Your task to perform on an android device: Is it going to rain today? Image 0: 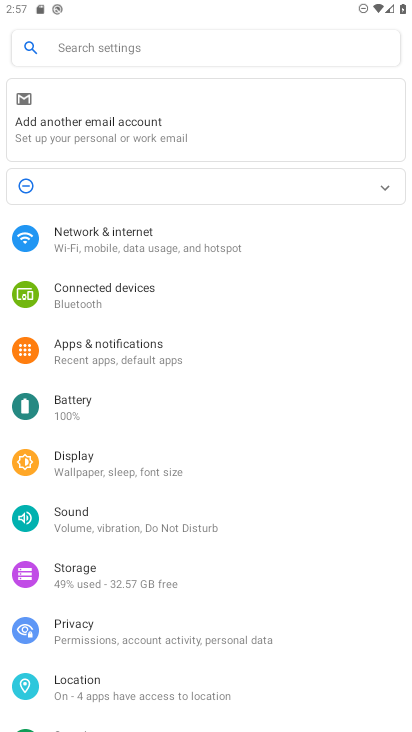
Step 0: press home button
Your task to perform on an android device: Is it going to rain today? Image 1: 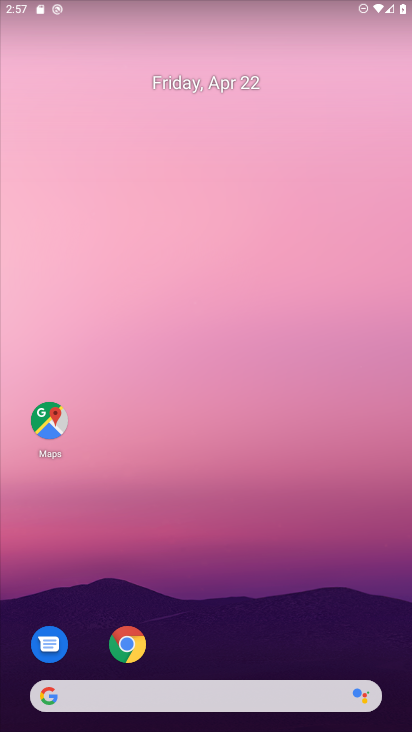
Step 1: drag from (193, 633) to (310, 116)
Your task to perform on an android device: Is it going to rain today? Image 2: 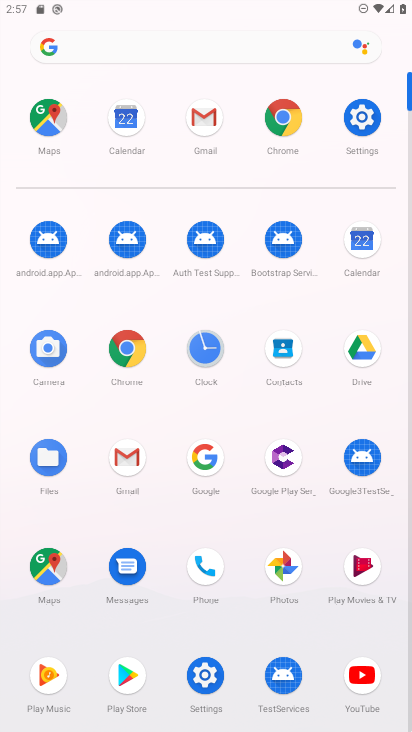
Step 2: click (281, 115)
Your task to perform on an android device: Is it going to rain today? Image 3: 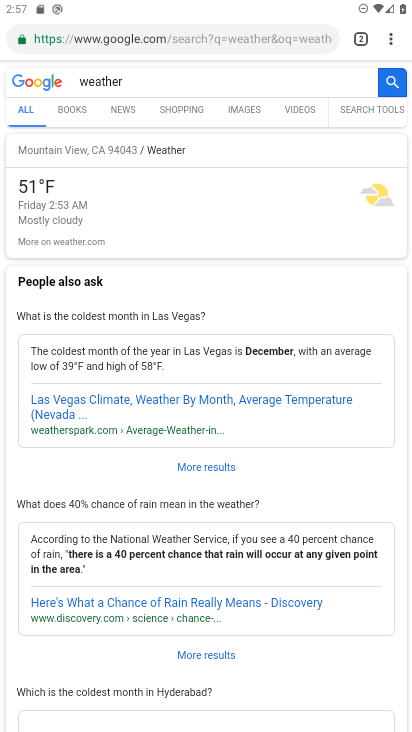
Step 3: click (60, 208)
Your task to perform on an android device: Is it going to rain today? Image 4: 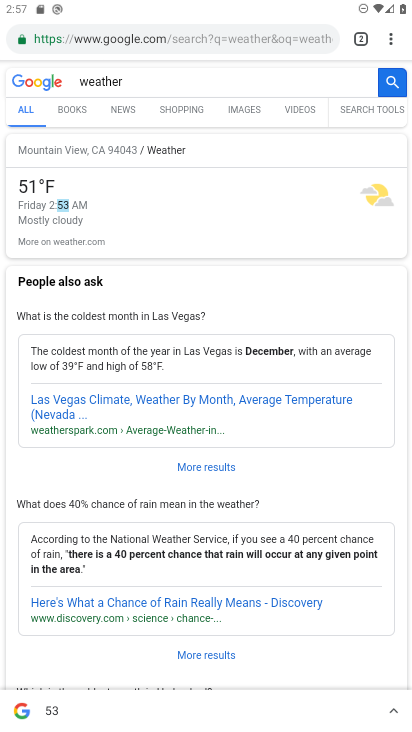
Step 4: click (51, 176)
Your task to perform on an android device: Is it going to rain today? Image 5: 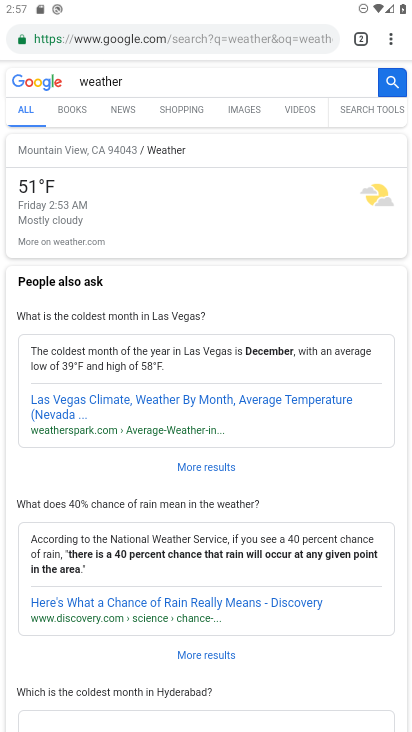
Step 5: click (43, 182)
Your task to perform on an android device: Is it going to rain today? Image 6: 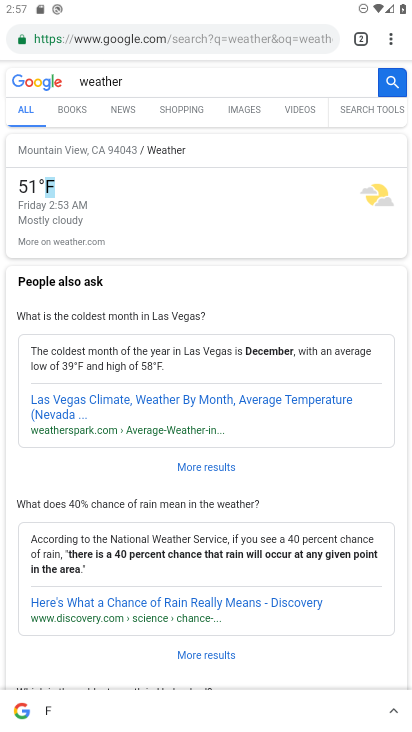
Step 6: click (204, 184)
Your task to perform on an android device: Is it going to rain today? Image 7: 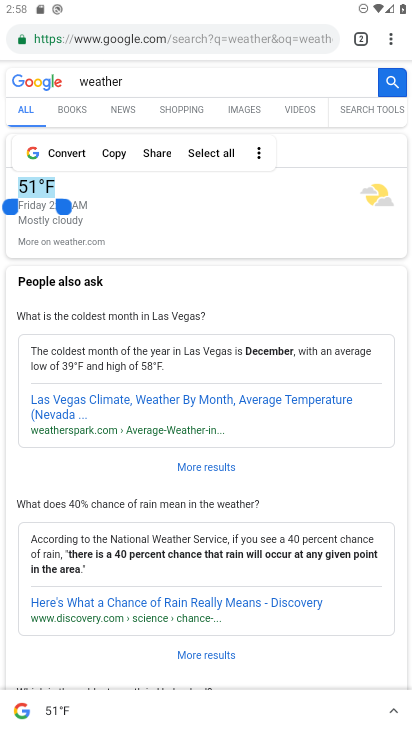
Step 7: click (192, 197)
Your task to perform on an android device: Is it going to rain today? Image 8: 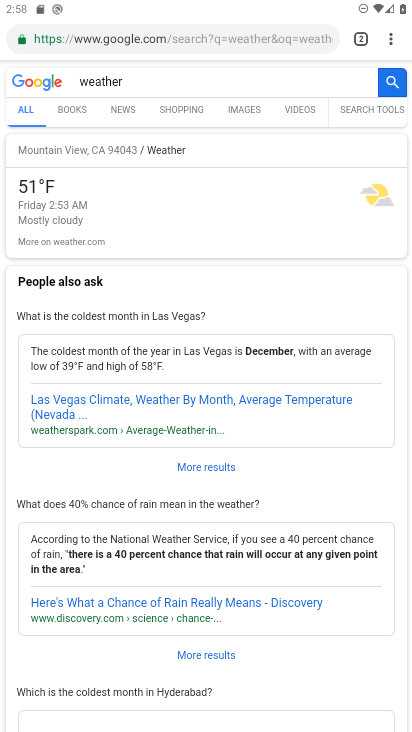
Step 8: task complete